Your task to perform on an android device: Go to notification settings Image 0: 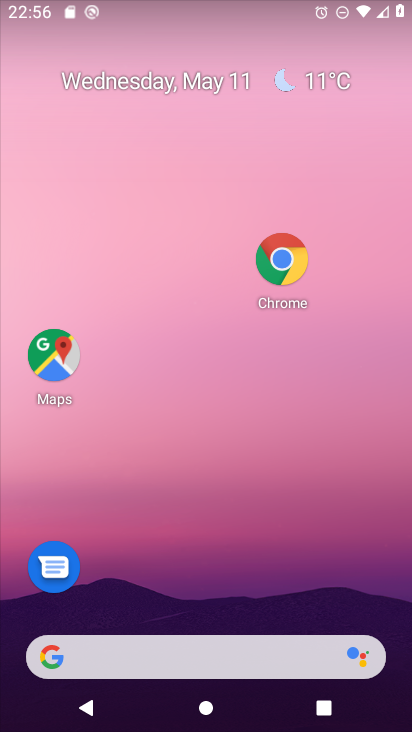
Step 0: drag from (158, 659) to (345, 126)
Your task to perform on an android device: Go to notification settings Image 1: 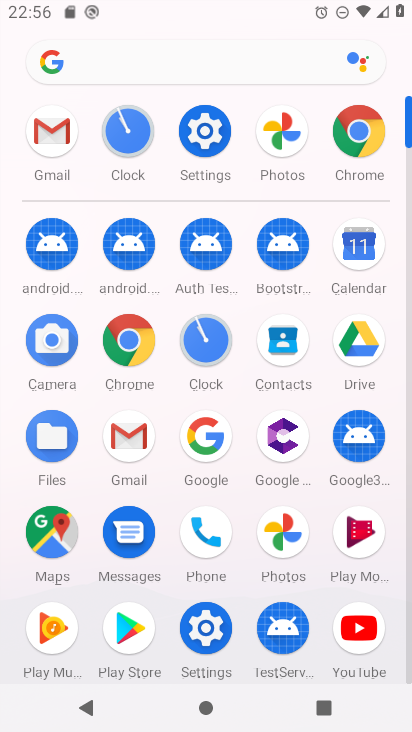
Step 1: click (207, 142)
Your task to perform on an android device: Go to notification settings Image 2: 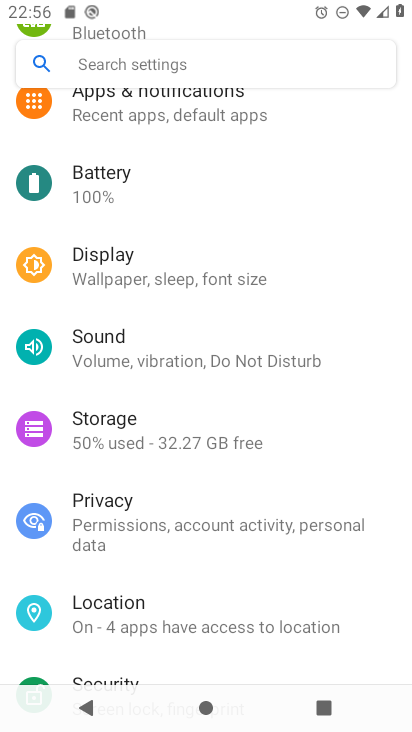
Step 2: drag from (302, 175) to (274, 433)
Your task to perform on an android device: Go to notification settings Image 3: 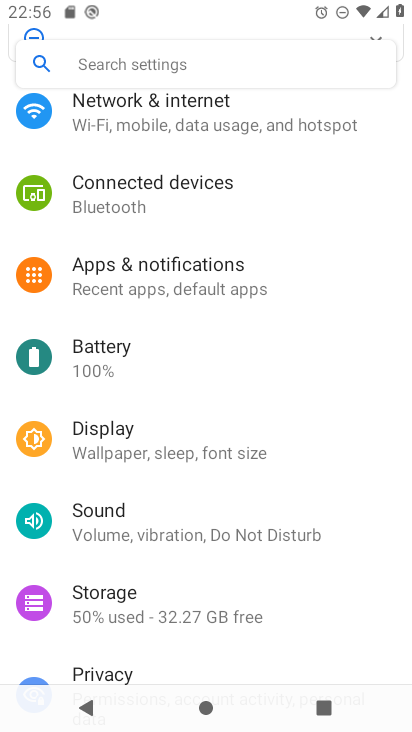
Step 3: click (211, 266)
Your task to perform on an android device: Go to notification settings Image 4: 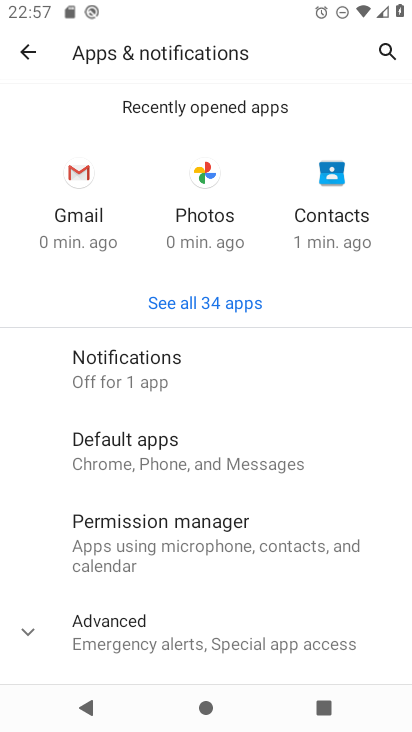
Step 4: click (143, 376)
Your task to perform on an android device: Go to notification settings Image 5: 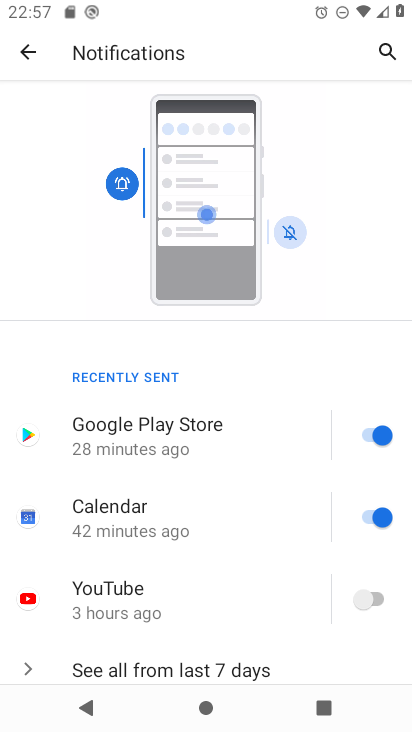
Step 5: task complete